Your task to perform on an android device: What's the weather like in London? Image 0: 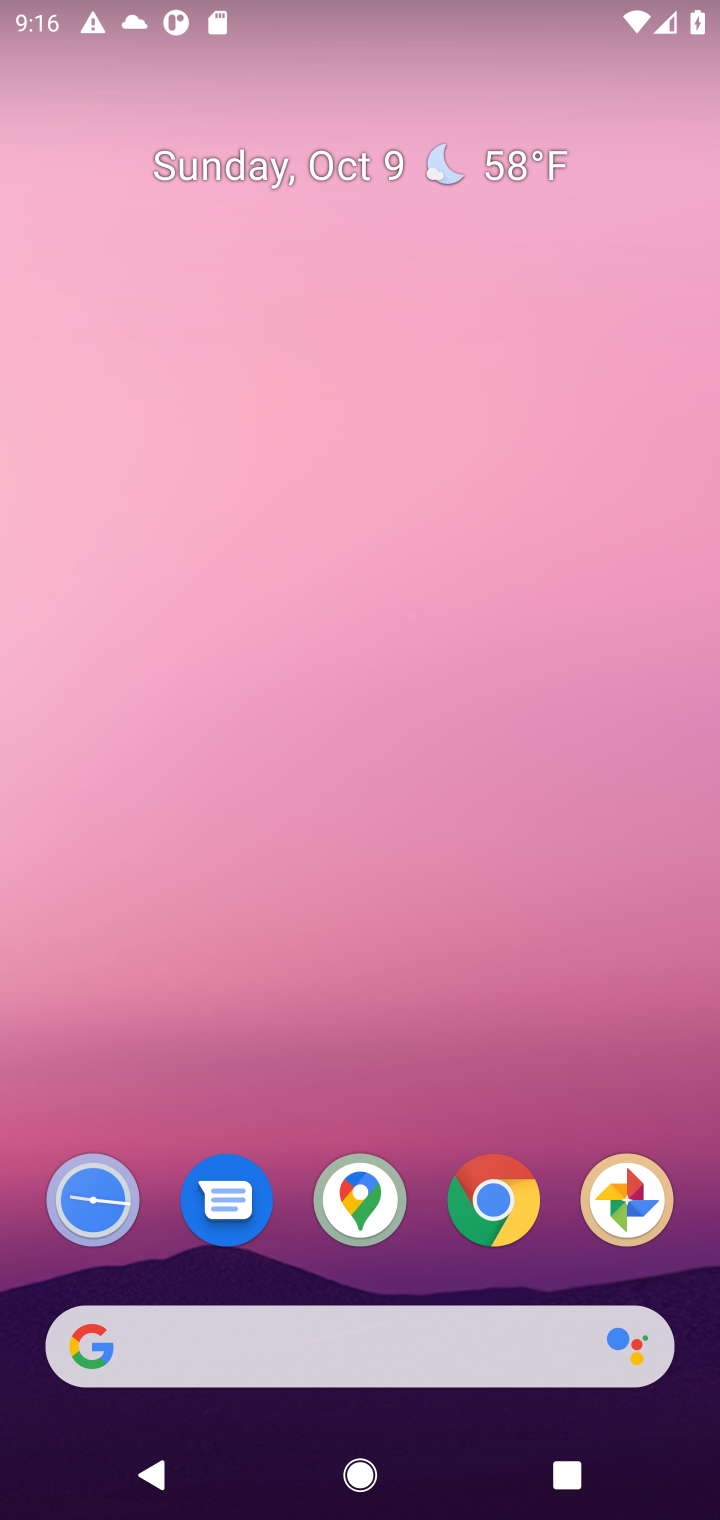
Step 0: drag from (402, 1121) to (470, 49)
Your task to perform on an android device: What's the weather like in London? Image 1: 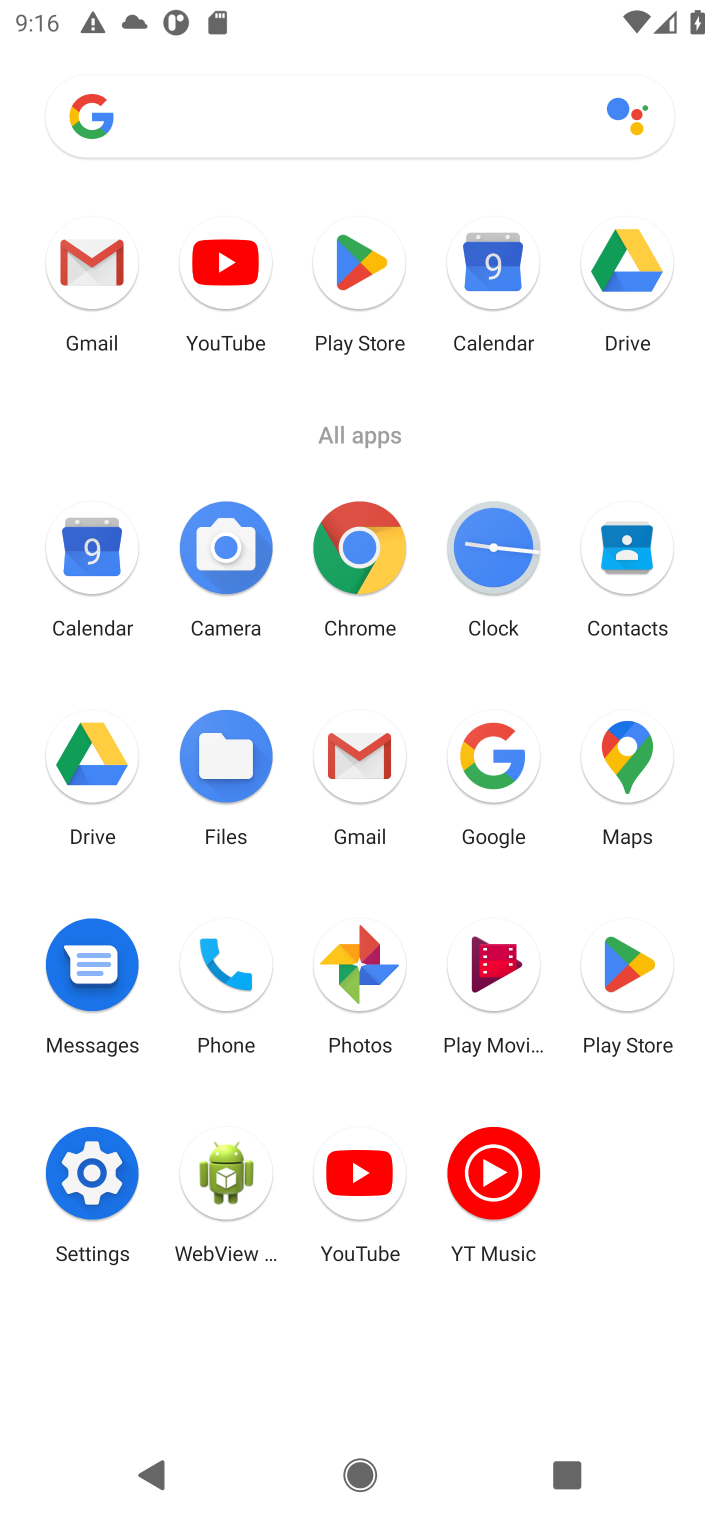
Step 1: click (336, 549)
Your task to perform on an android device: What's the weather like in London? Image 2: 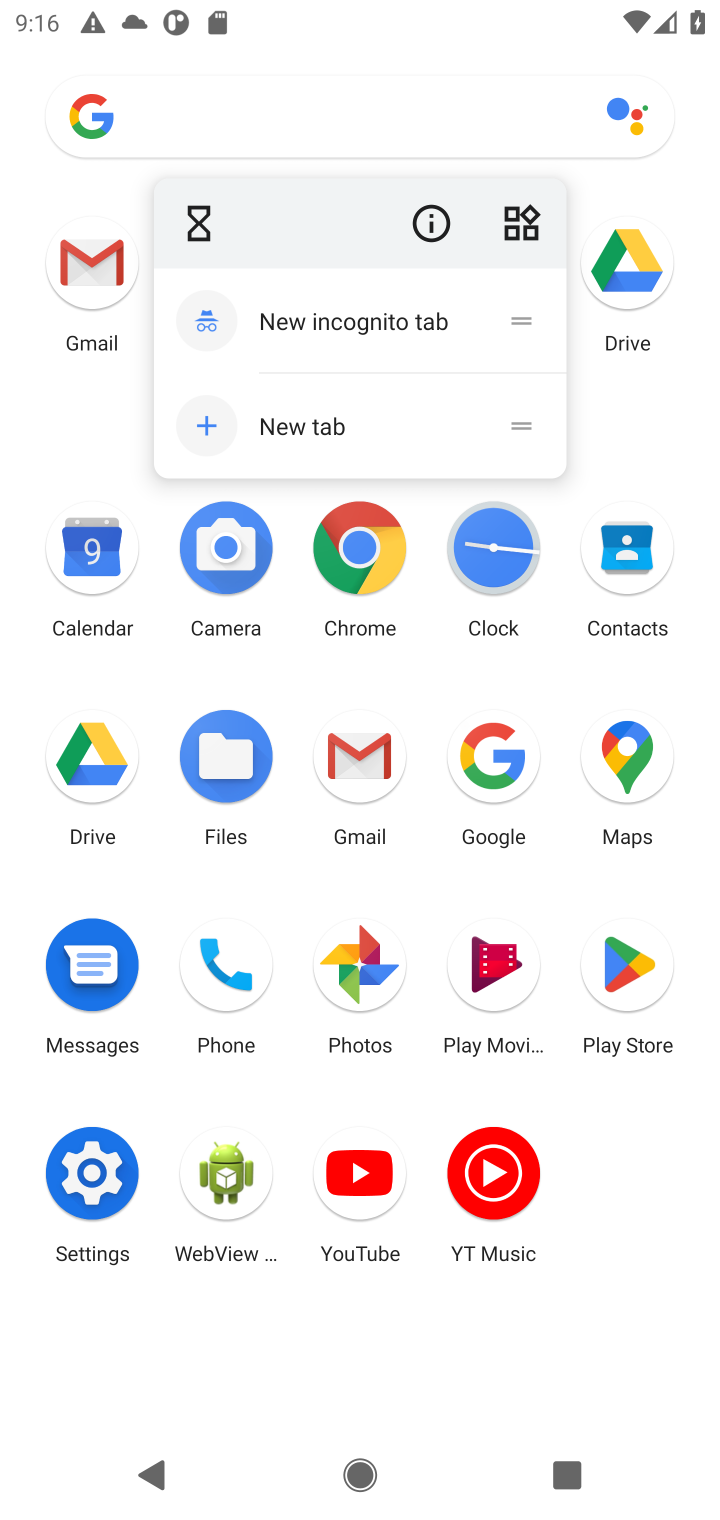
Step 2: click (359, 540)
Your task to perform on an android device: What's the weather like in London? Image 3: 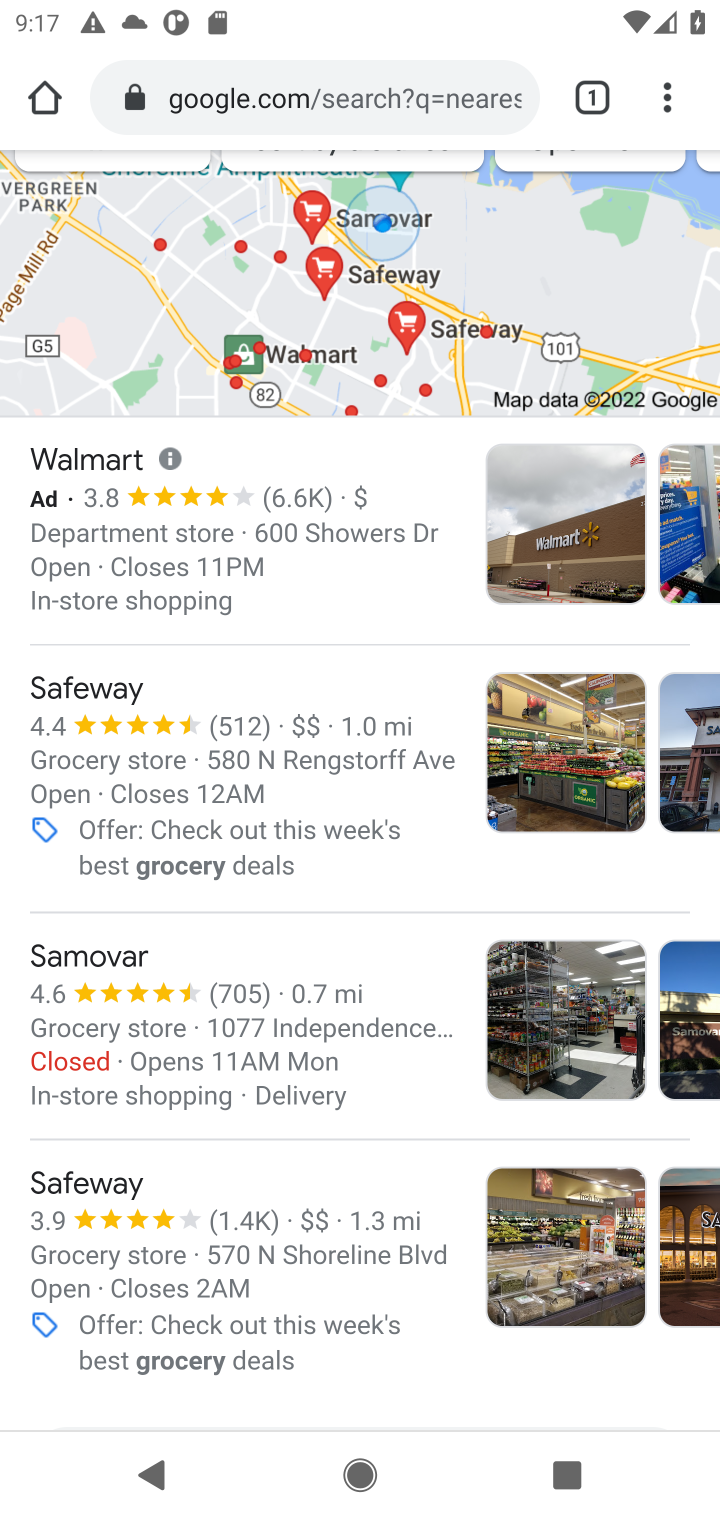
Step 3: click (294, 108)
Your task to perform on an android device: What's the weather like in London? Image 4: 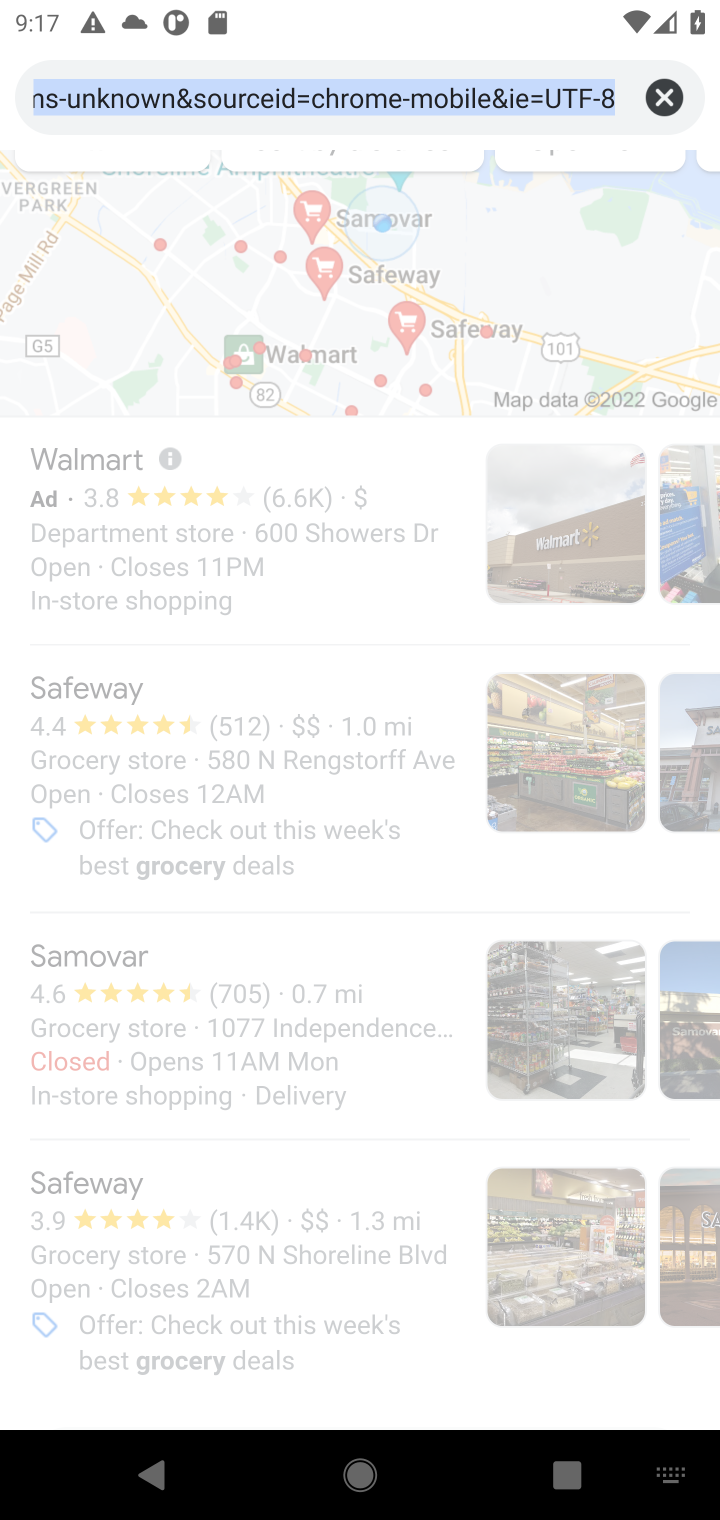
Step 4: click (665, 86)
Your task to perform on an android device: What's the weather like in London? Image 5: 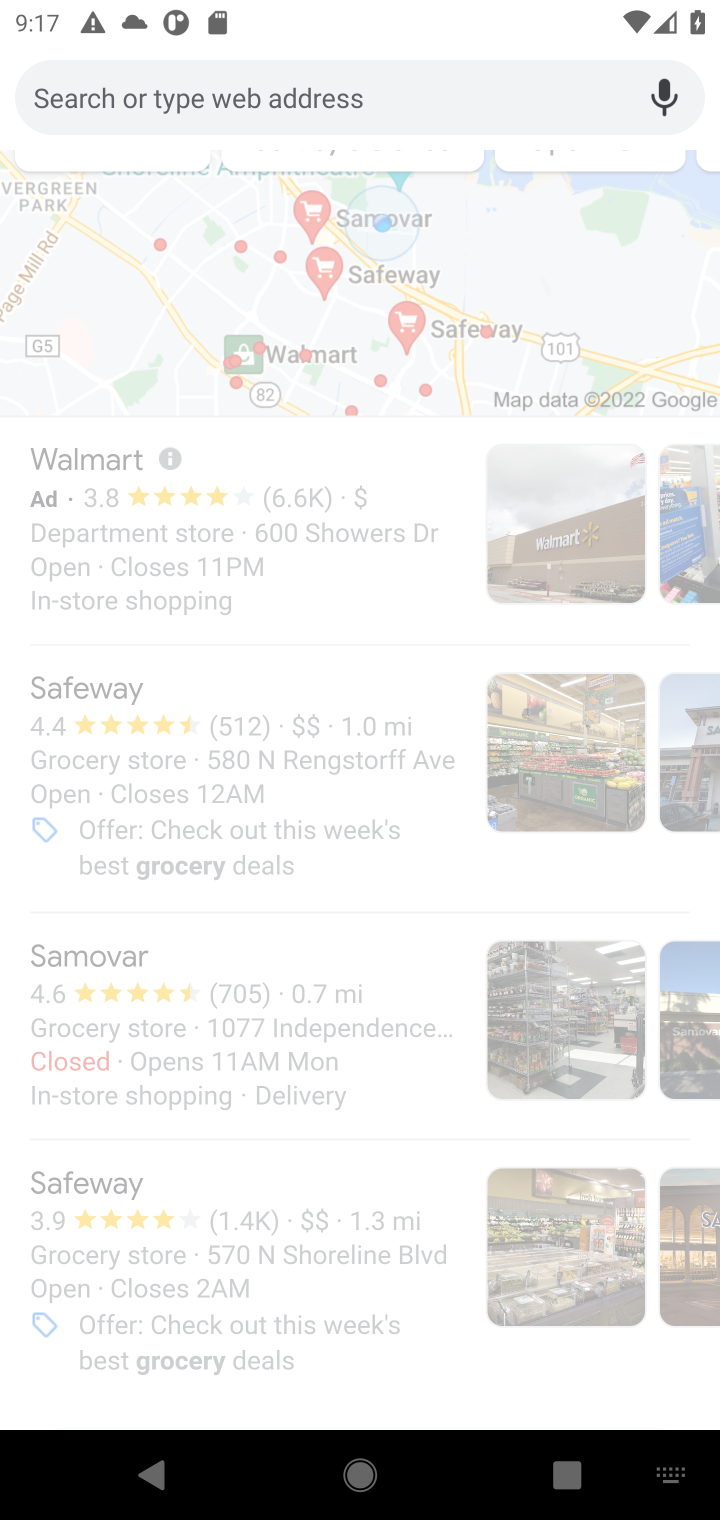
Step 5: type "What's the weather like in London?"
Your task to perform on an android device: What's the weather like in London? Image 6: 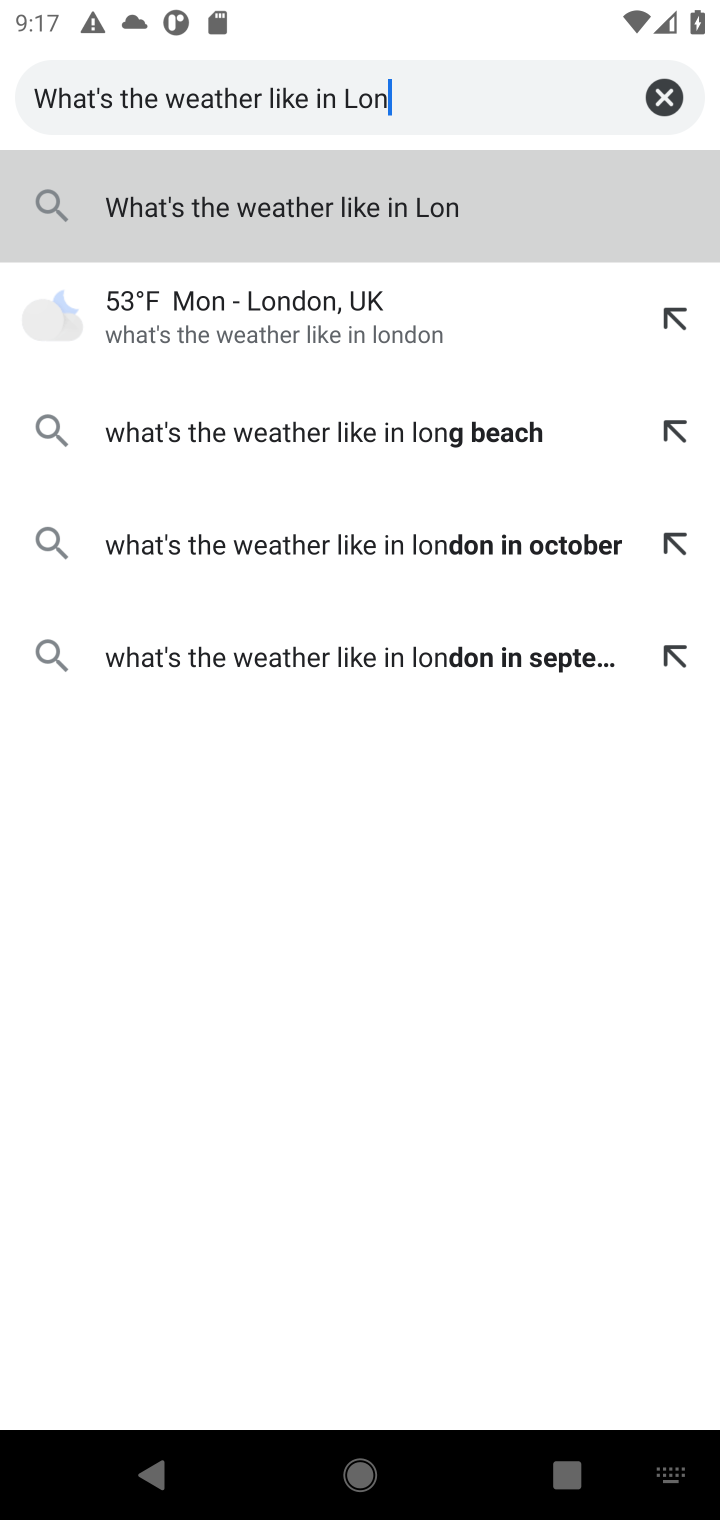
Step 6: click (352, 199)
Your task to perform on an android device: What's the weather like in London? Image 7: 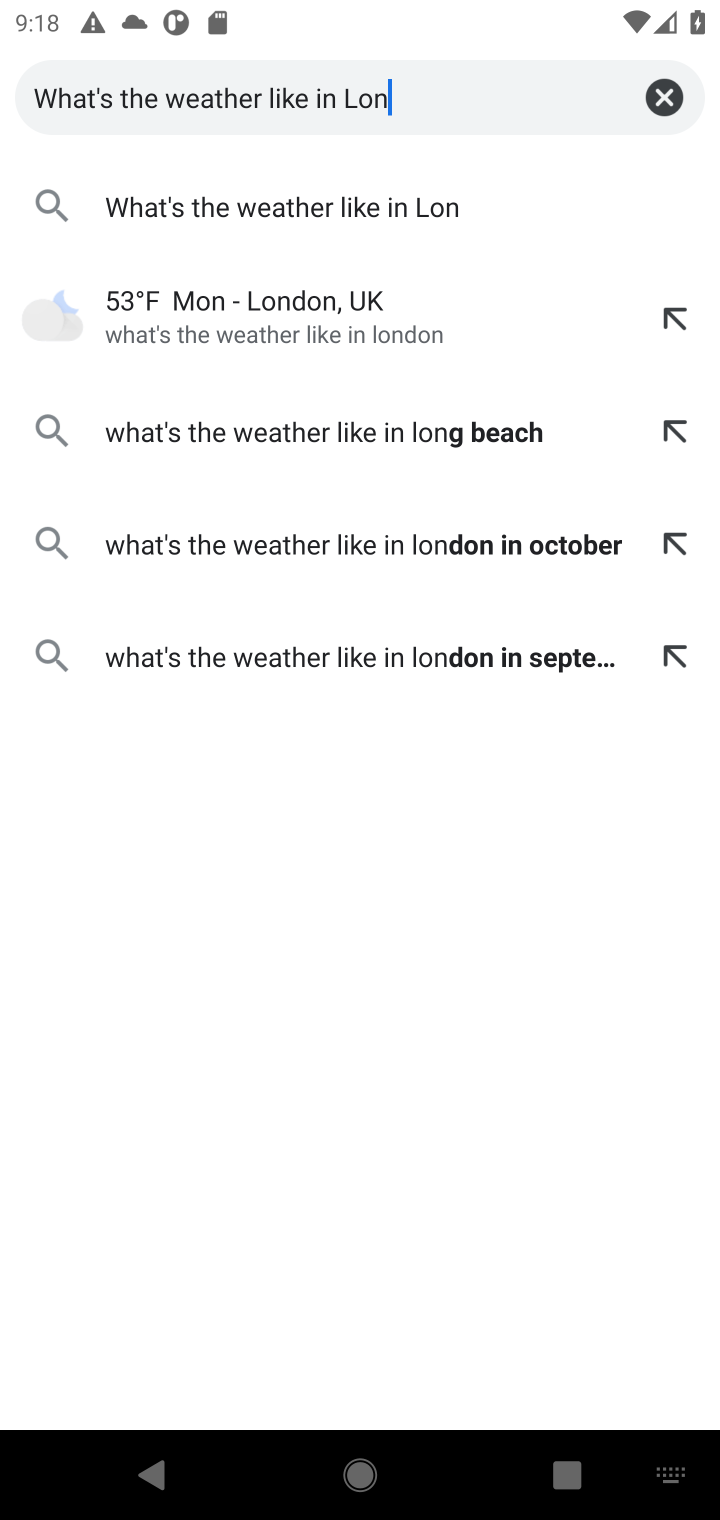
Step 7: click (417, 212)
Your task to perform on an android device: What's the weather like in London? Image 8: 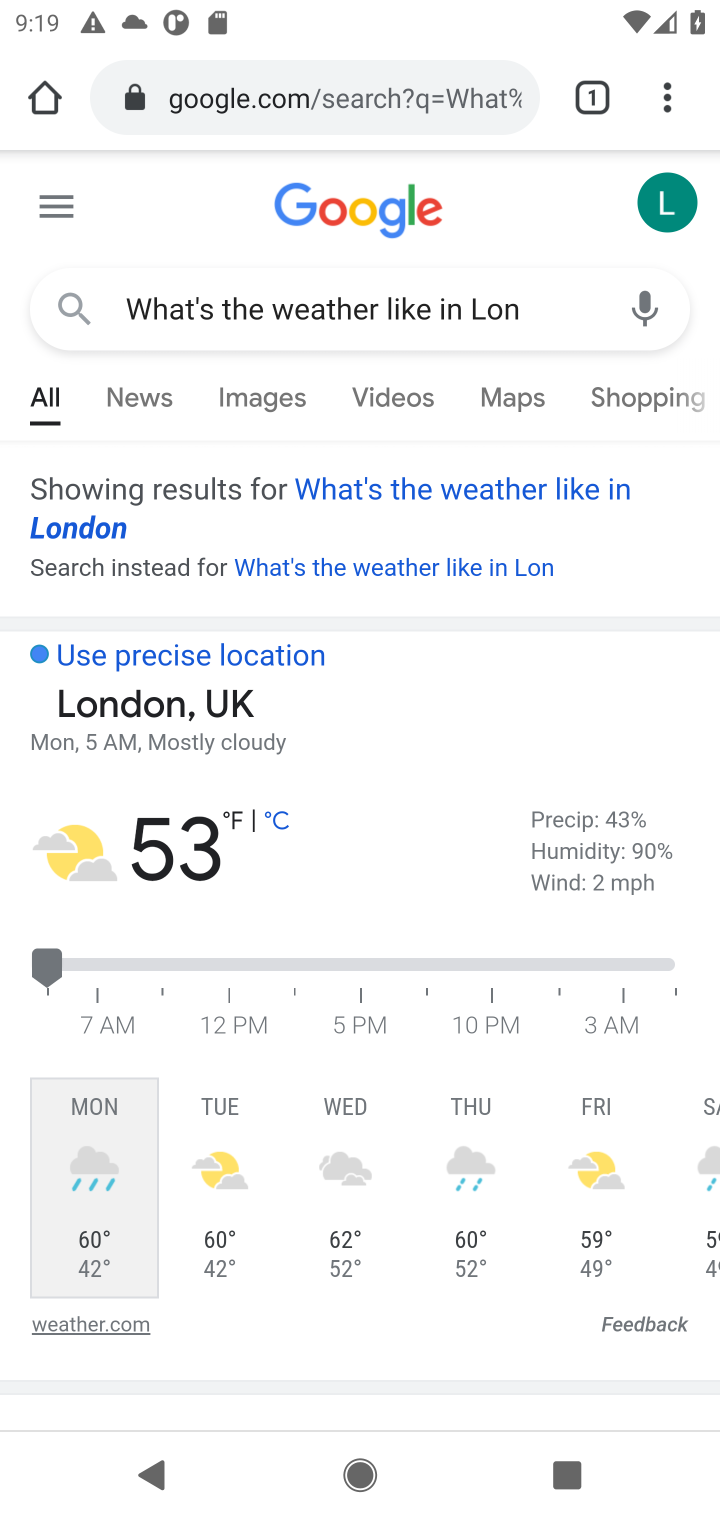
Step 8: task complete